Your task to perform on an android device: Open calendar and show me the second week of next month Image 0: 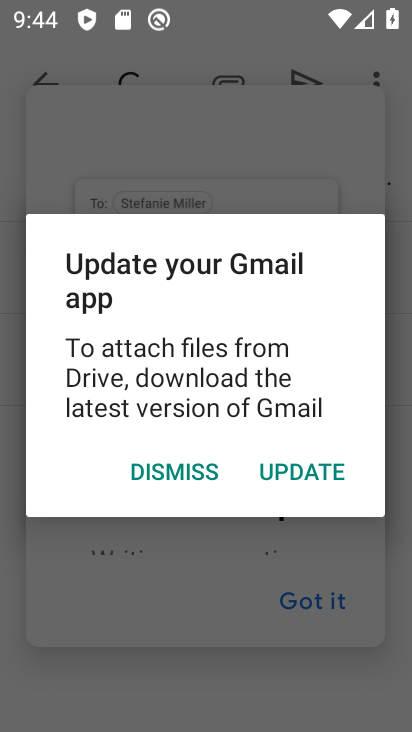
Step 0: press home button
Your task to perform on an android device: Open calendar and show me the second week of next month Image 1: 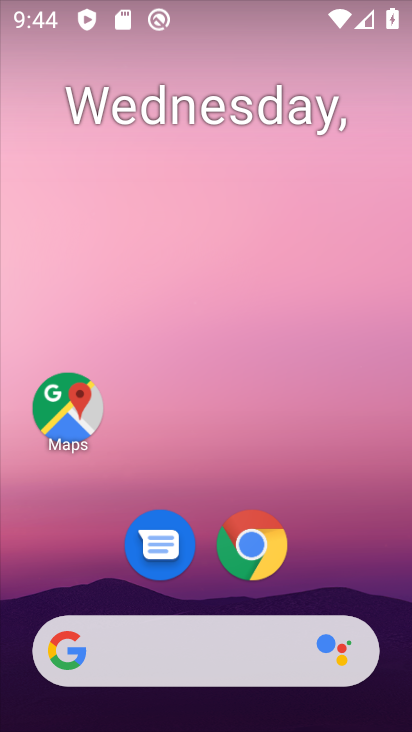
Step 1: drag from (314, 432) to (254, 30)
Your task to perform on an android device: Open calendar and show me the second week of next month Image 2: 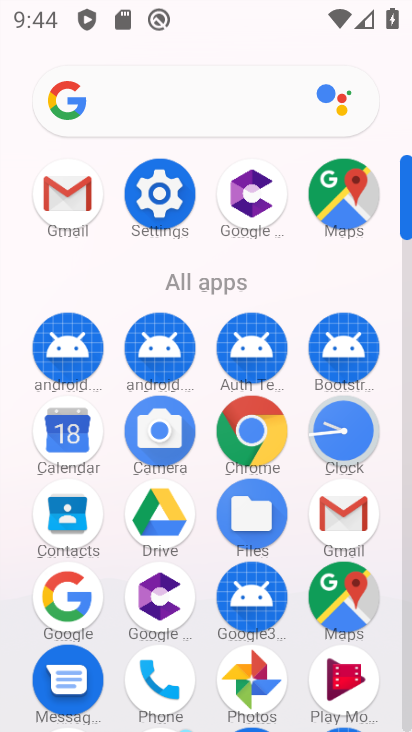
Step 2: click (80, 425)
Your task to perform on an android device: Open calendar and show me the second week of next month Image 3: 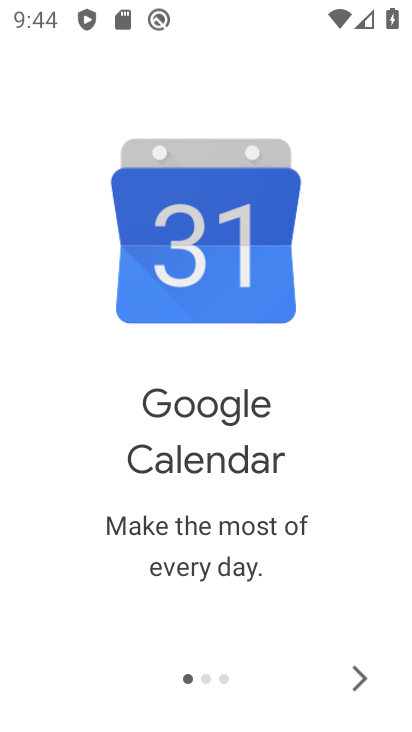
Step 3: click (355, 678)
Your task to perform on an android device: Open calendar and show me the second week of next month Image 4: 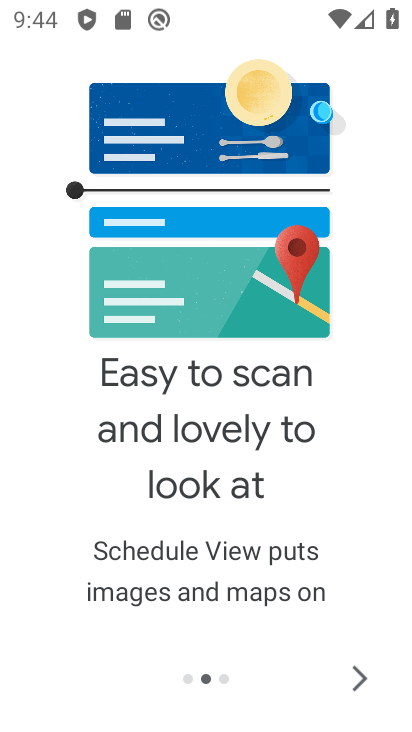
Step 4: click (355, 677)
Your task to perform on an android device: Open calendar and show me the second week of next month Image 5: 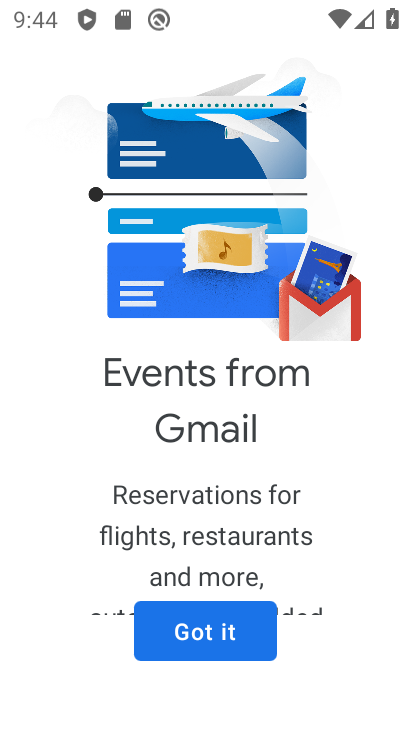
Step 5: click (263, 638)
Your task to perform on an android device: Open calendar and show me the second week of next month Image 6: 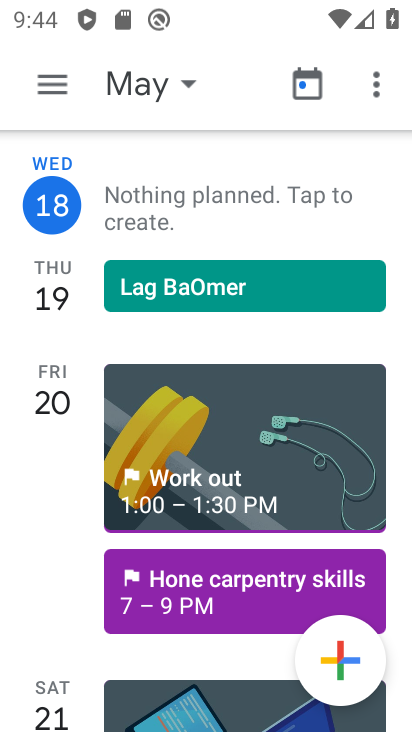
Step 6: click (51, 83)
Your task to perform on an android device: Open calendar and show me the second week of next month Image 7: 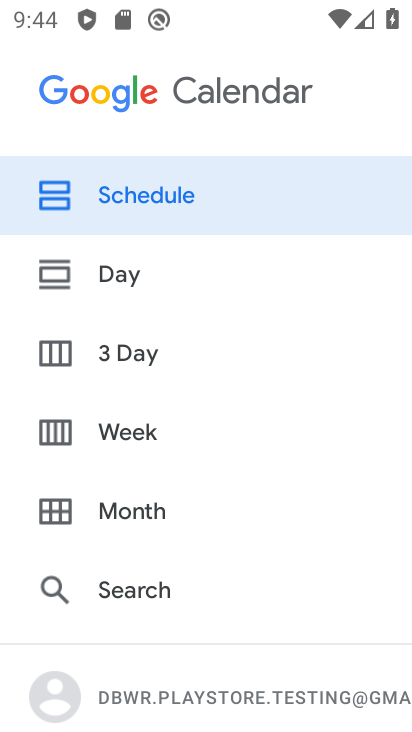
Step 7: click (87, 494)
Your task to perform on an android device: Open calendar and show me the second week of next month Image 8: 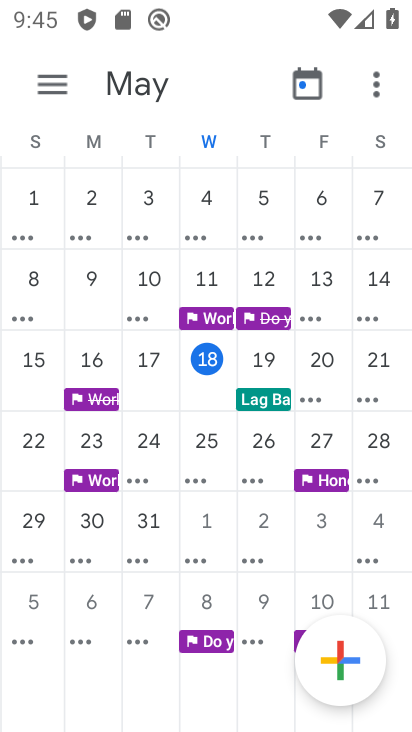
Step 8: drag from (369, 525) to (2, 469)
Your task to perform on an android device: Open calendar and show me the second week of next month Image 9: 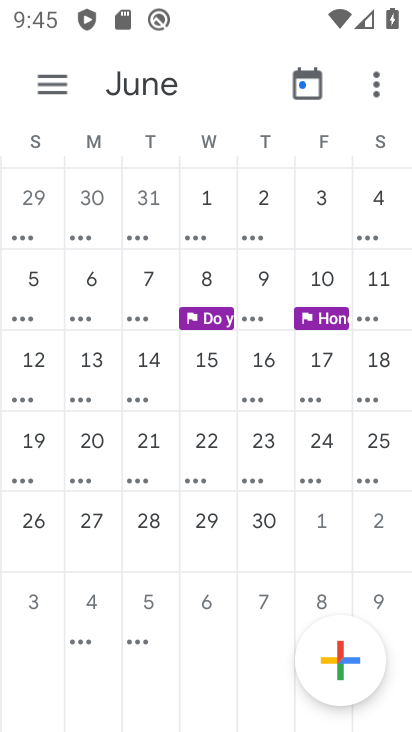
Step 9: click (25, 352)
Your task to perform on an android device: Open calendar and show me the second week of next month Image 10: 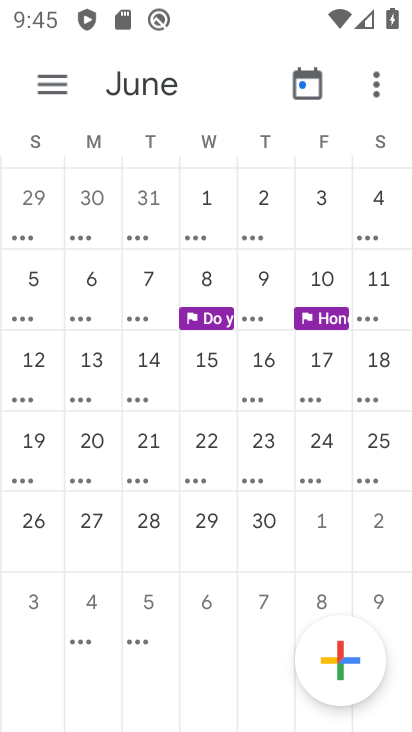
Step 10: click (41, 352)
Your task to perform on an android device: Open calendar and show me the second week of next month Image 11: 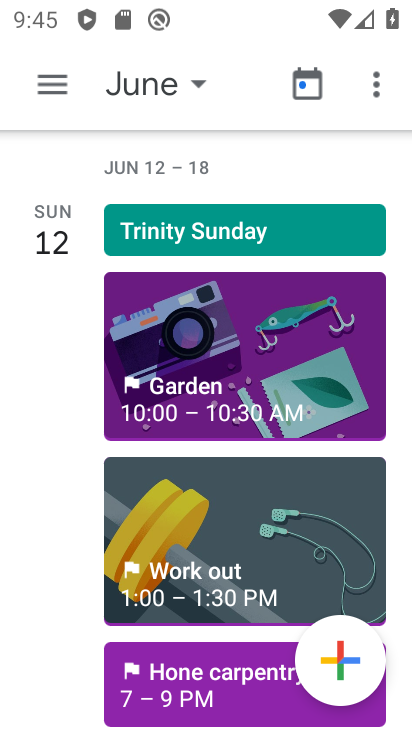
Step 11: click (45, 80)
Your task to perform on an android device: Open calendar and show me the second week of next month Image 12: 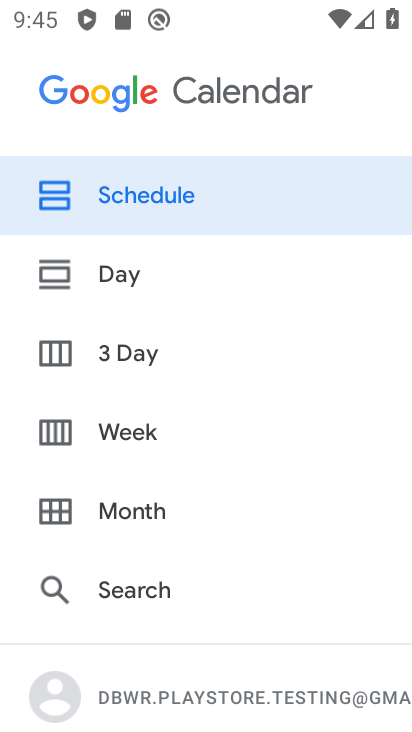
Step 12: click (61, 427)
Your task to perform on an android device: Open calendar and show me the second week of next month Image 13: 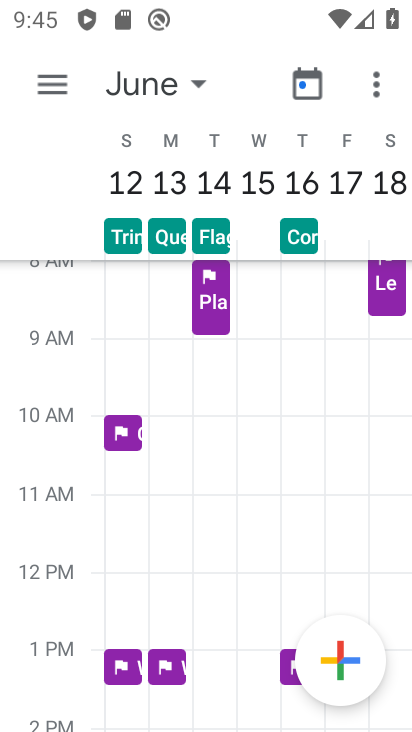
Step 13: task complete